Your task to perform on an android device: Open internet settings Image 0: 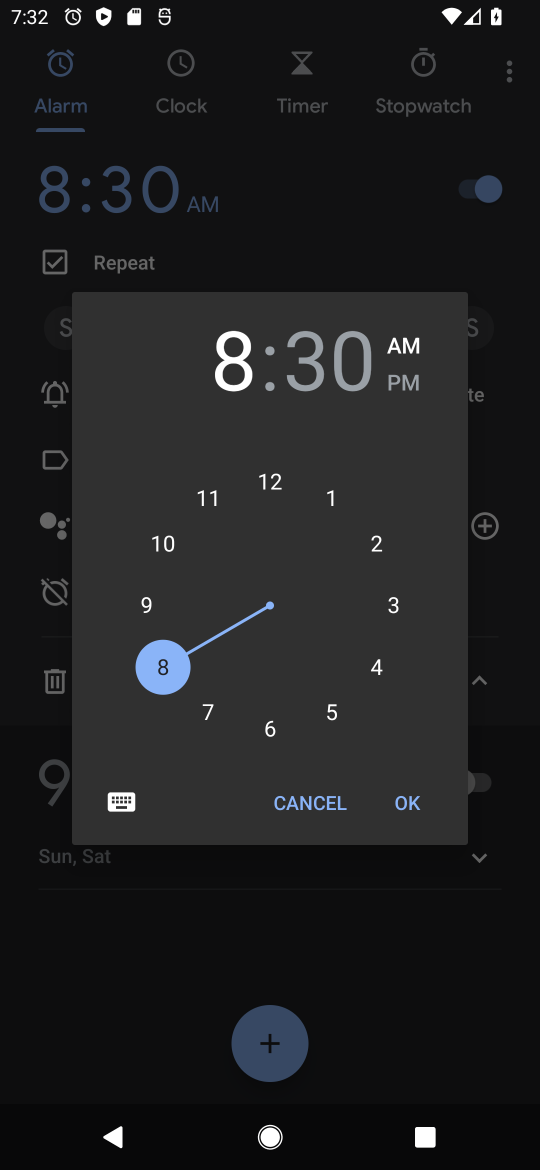
Step 0: press home button
Your task to perform on an android device: Open internet settings Image 1: 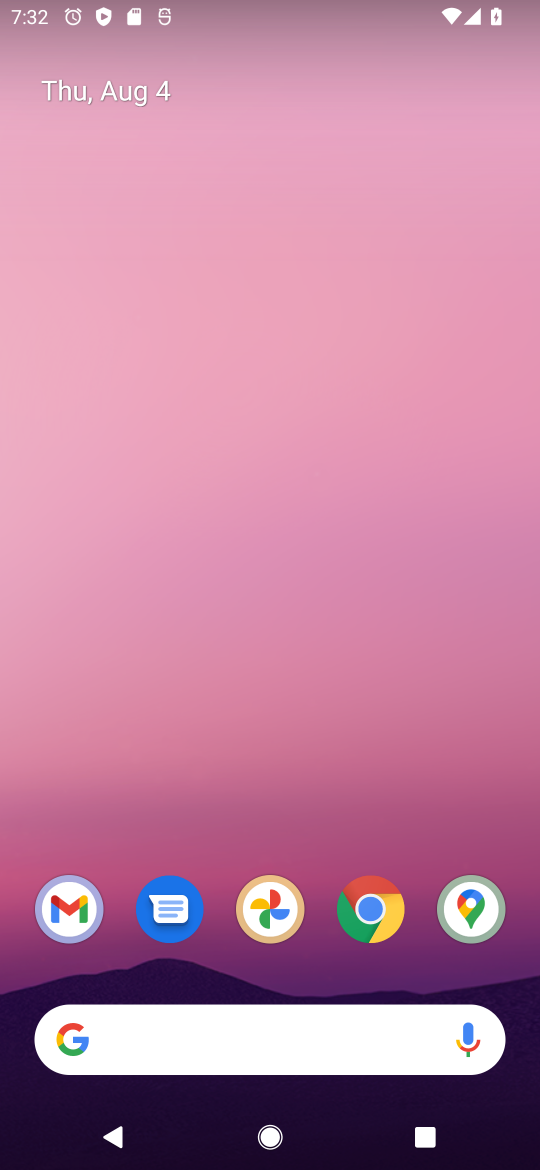
Step 1: drag from (225, 992) to (426, 153)
Your task to perform on an android device: Open internet settings Image 2: 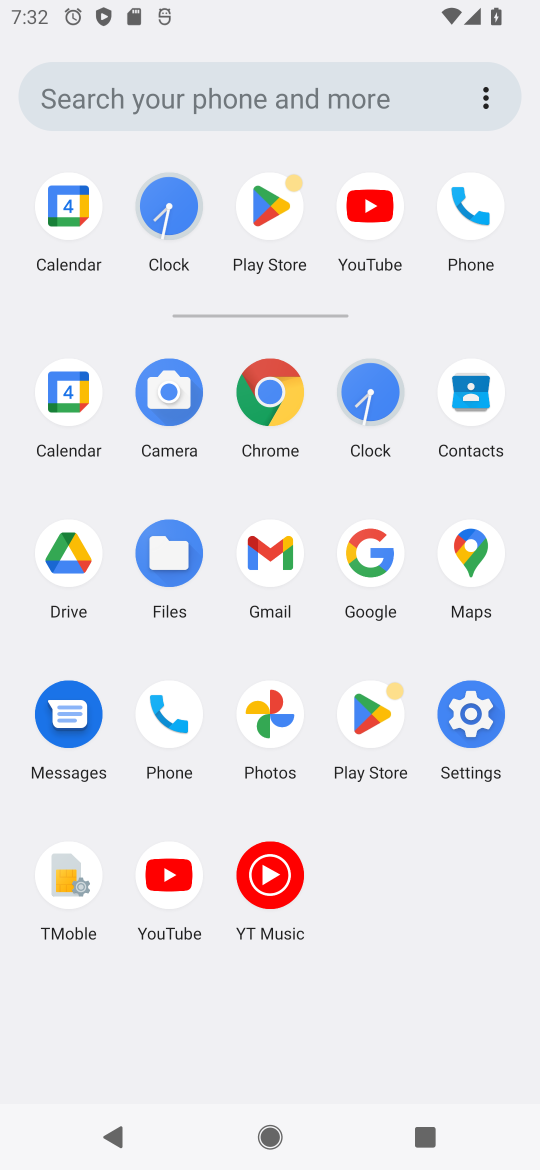
Step 2: click (446, 745)
Your task to perform on an android device: Open internet settings Image 3: 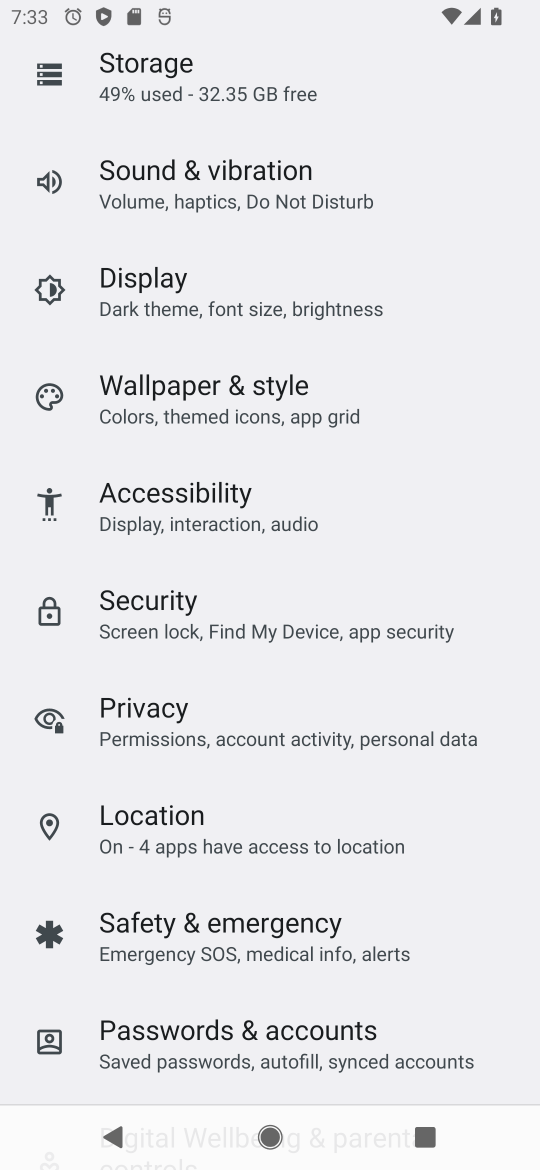
Step 3: drag from (247, 157) to (288, 988)
Your task to perform on an android device: Open internet settings Image 4: 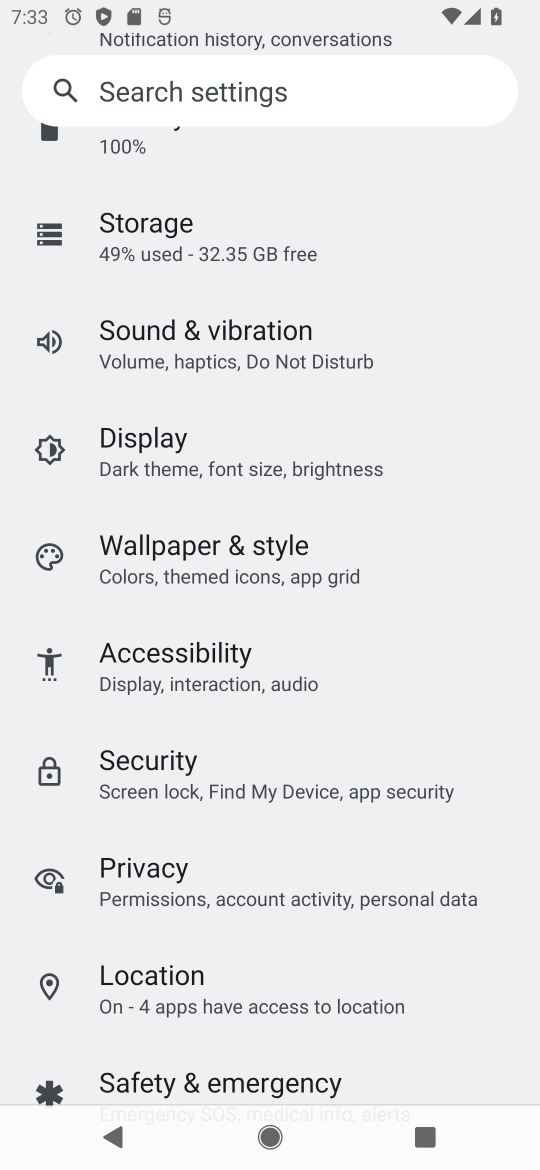
Step 4: drag from (236, 194) to (182, 1111)
Your task to perform on an android device: Open internet settings Image 5: 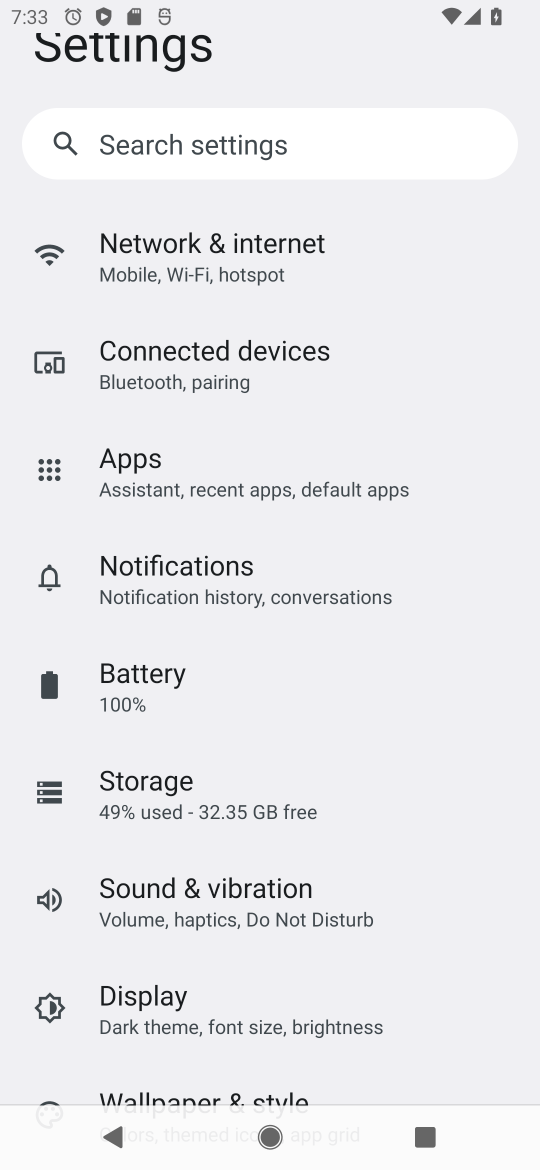
Step 5: click (158, 255)
Your task to perform on an android device: Open internet settings Image 6: 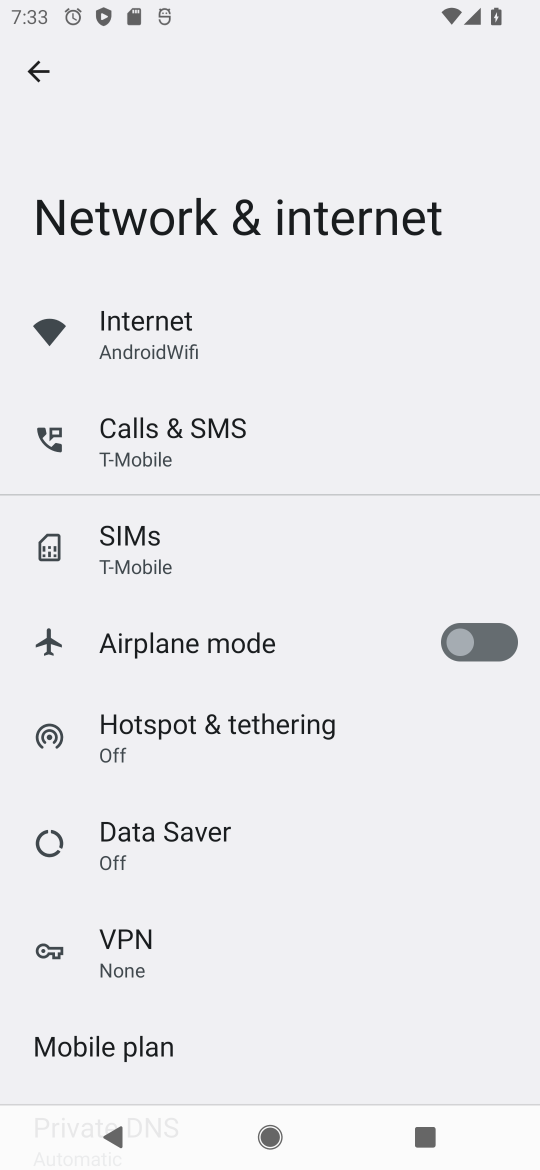
Step 6: click (124, 328)
Your task to perform on an android device: Open internet settings Image 7: 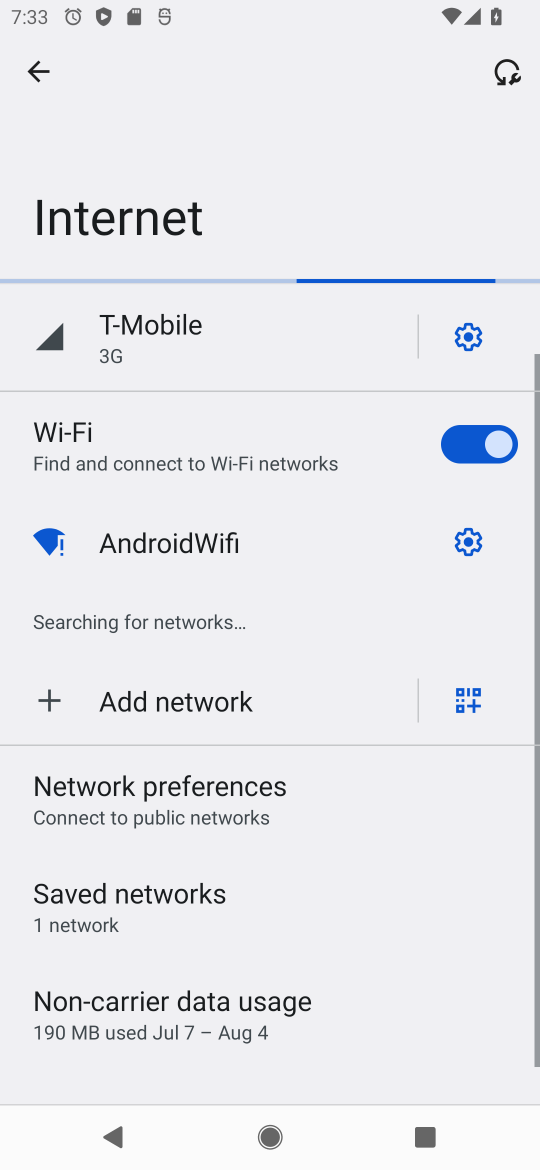
Step 7: task complete